Your task to perform on an android device: Show the shopping cart on amazon. Add "energizer triple a" to the cart on amazon Image 0: 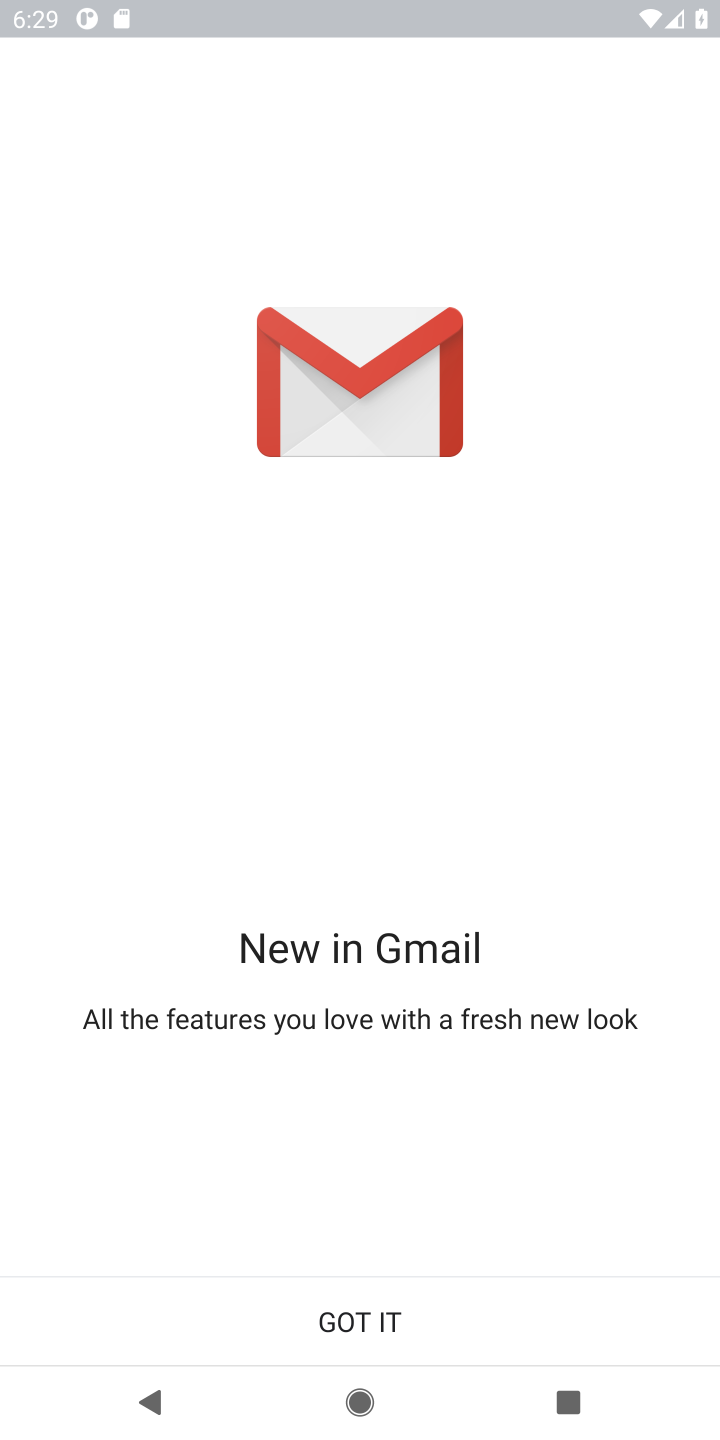
Step 0: press home button
Your task to perform on an android device: Show the shopping cart on amazon. Add "energizer triple a" to the cart on amazon Image 1: 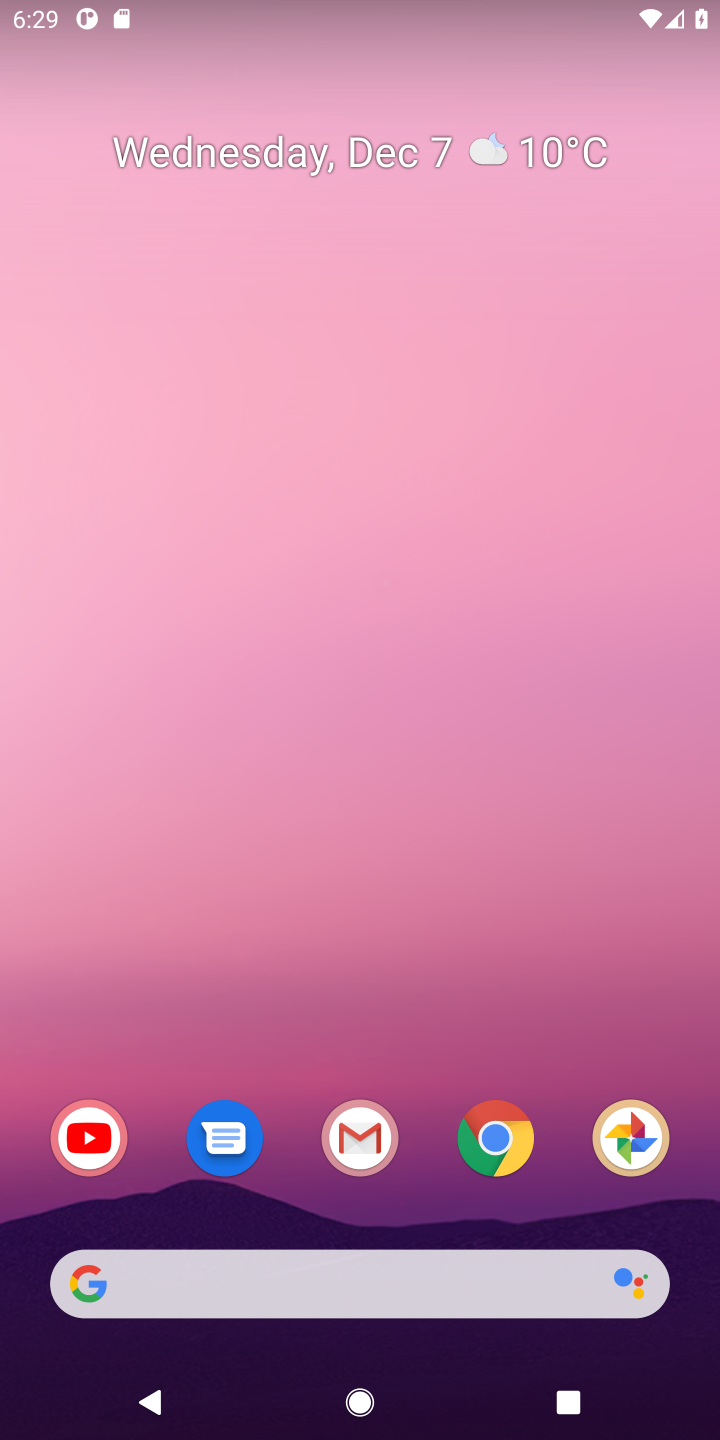
Step 1: click (147, 1301)
Your task to perform on an android device: Show the shopping cart on amazon. Add "energizer triple a" to the cart on amazon Image 2: 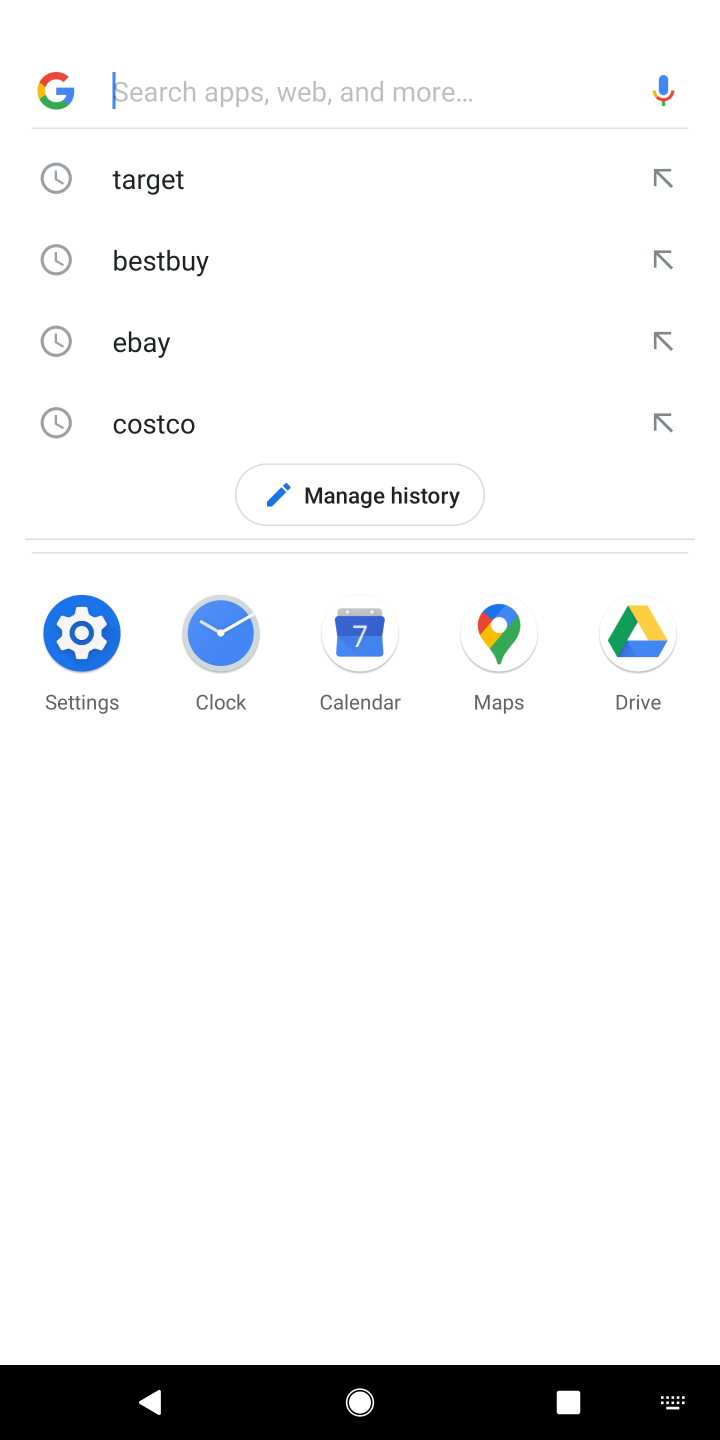
Step 2: press enter
Your task to perform on an android device: Show the shopping cart on amazon. Add "energizer triple a" to the cart on amazon Image 3: 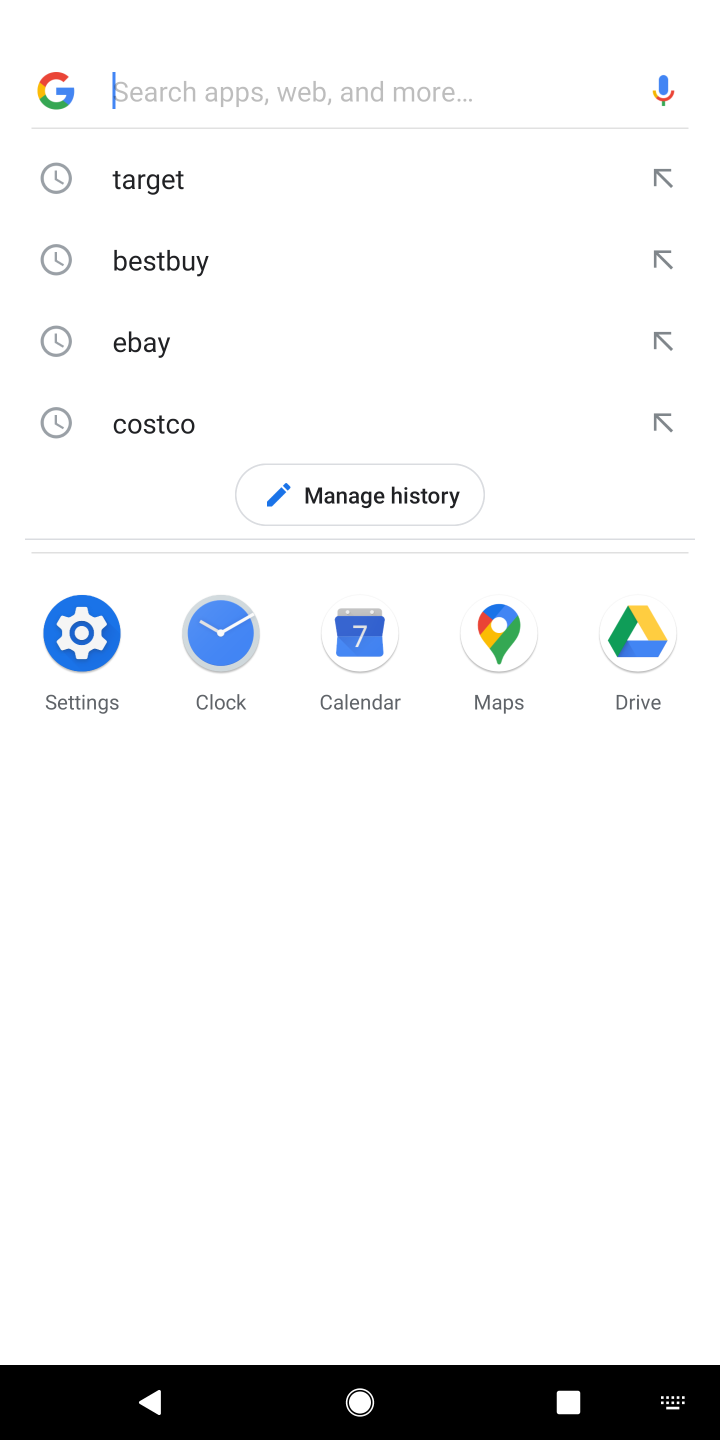
Step 3: type " amazon"
Your task to perform on an android device: Show the shopping cart on amazon. Add "energizer triple a" to the cart on amazon Image 4: 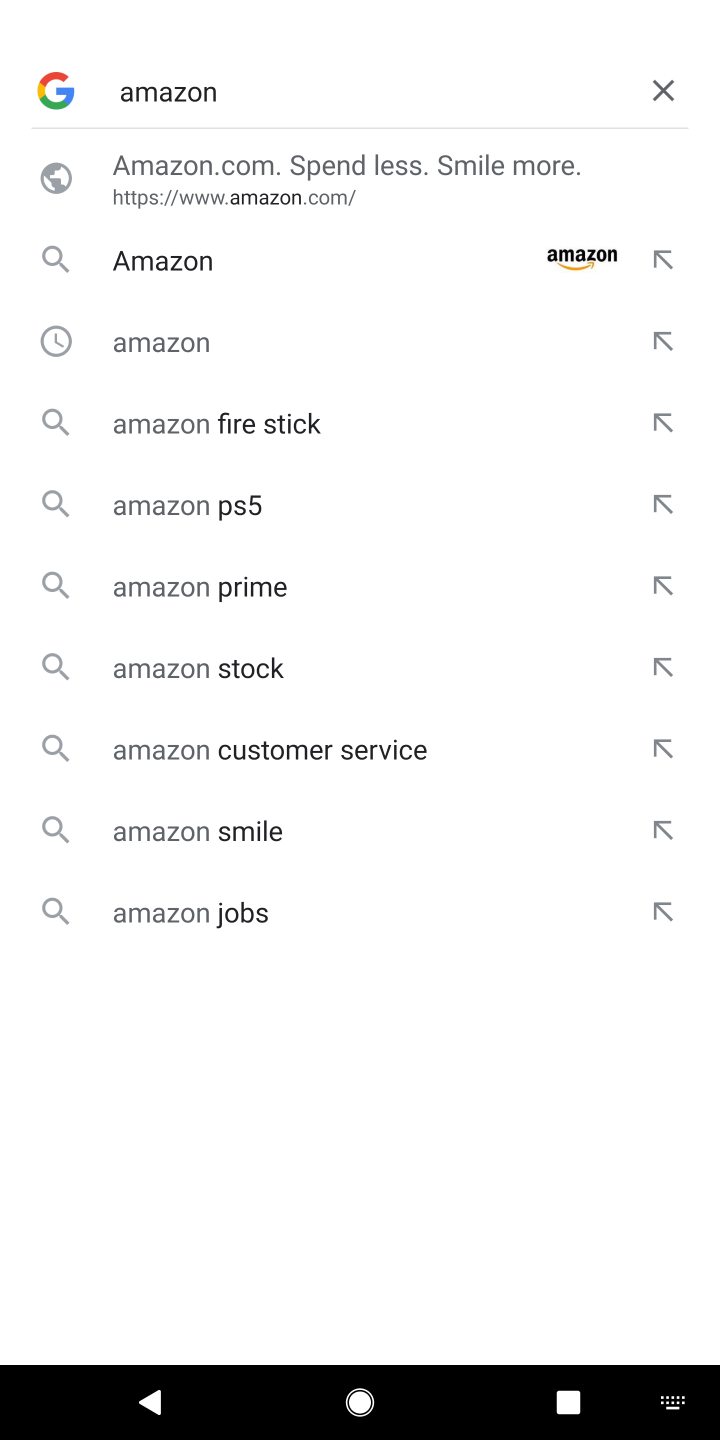
Step 4: press enter
Your task to perform on an android device: Show the shopping cart on amazon. Add "energizer triple a" to the cart on amazon Image 5: 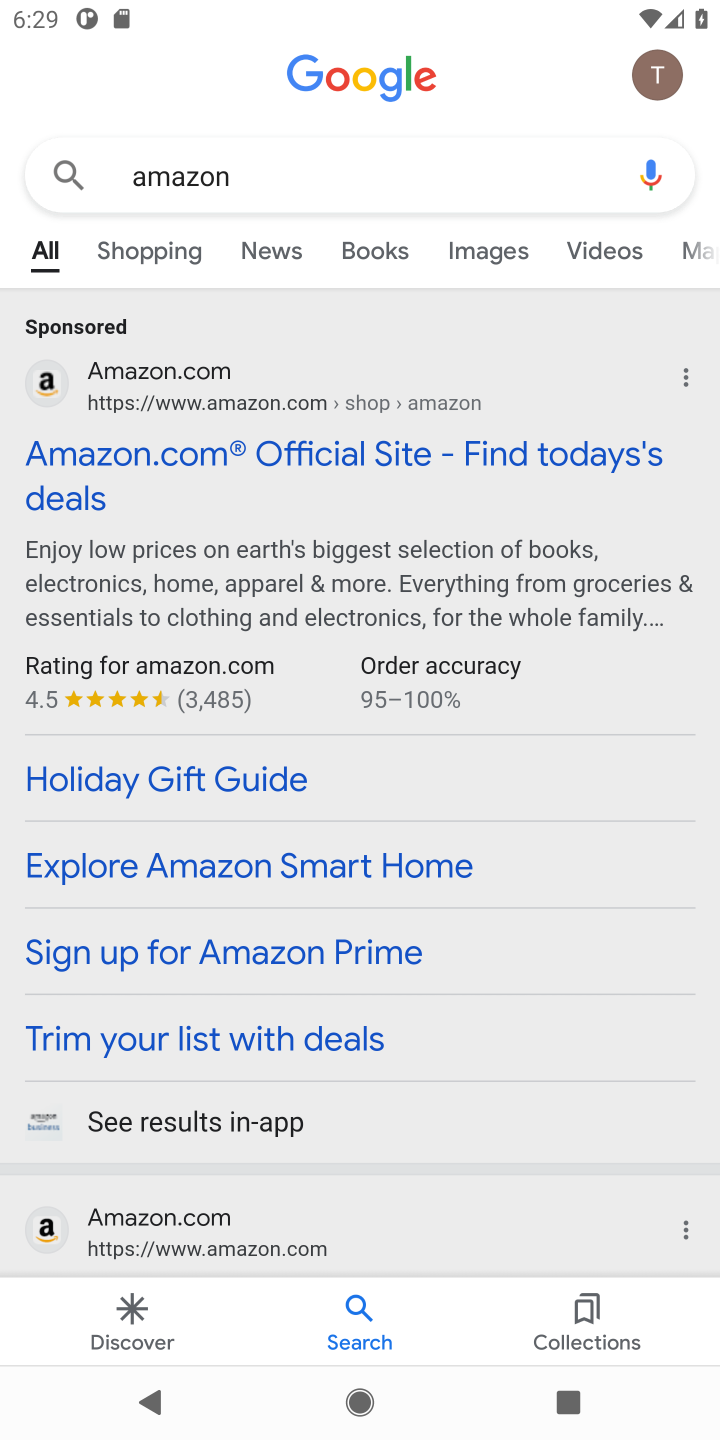
Step 5: click (404, 450)
Your task to perform on an android device: Show the shopping cart on amazon. Add "energizer triple a" to the cart on amazon Image 6: 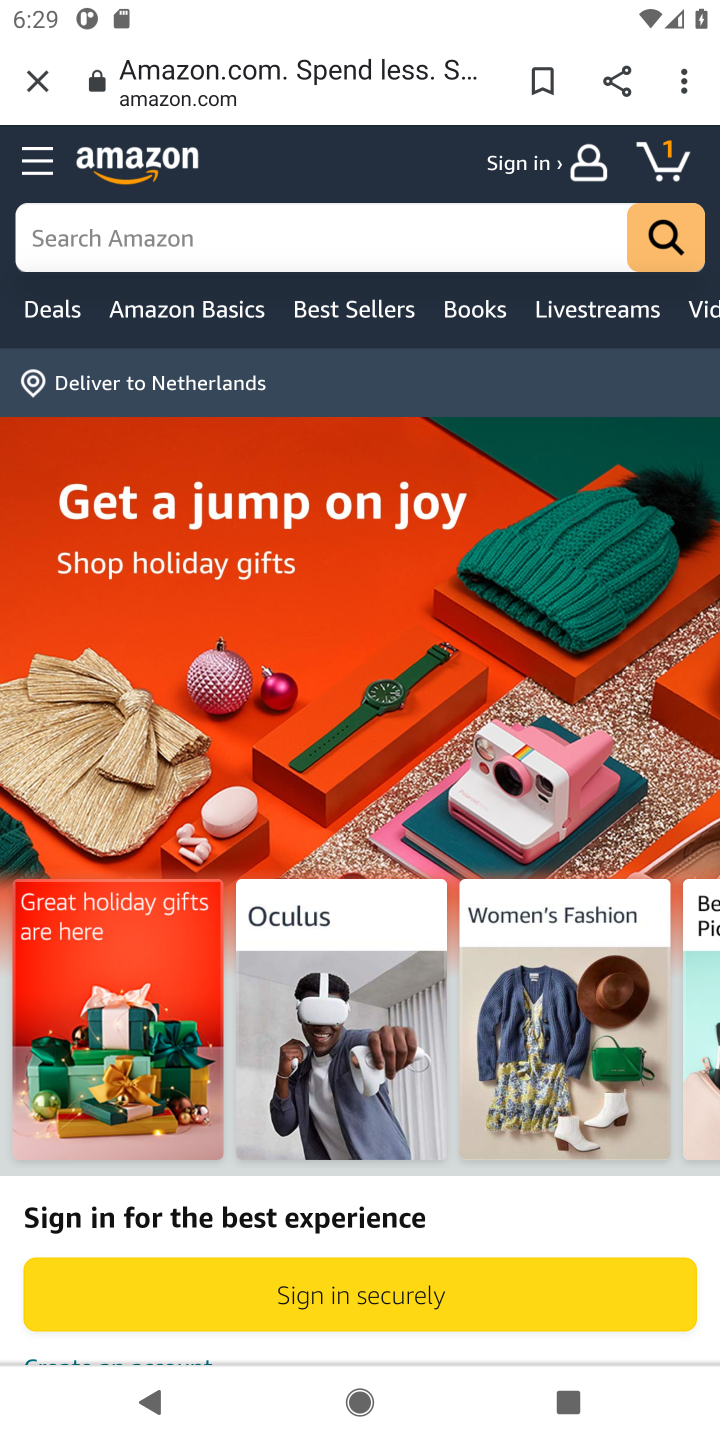
Step 6: click (664, 168)
Your task to perform on an android device: Show the shopping cart on amazon. Add "energizer triple a" to the cart on amazon Image 7: 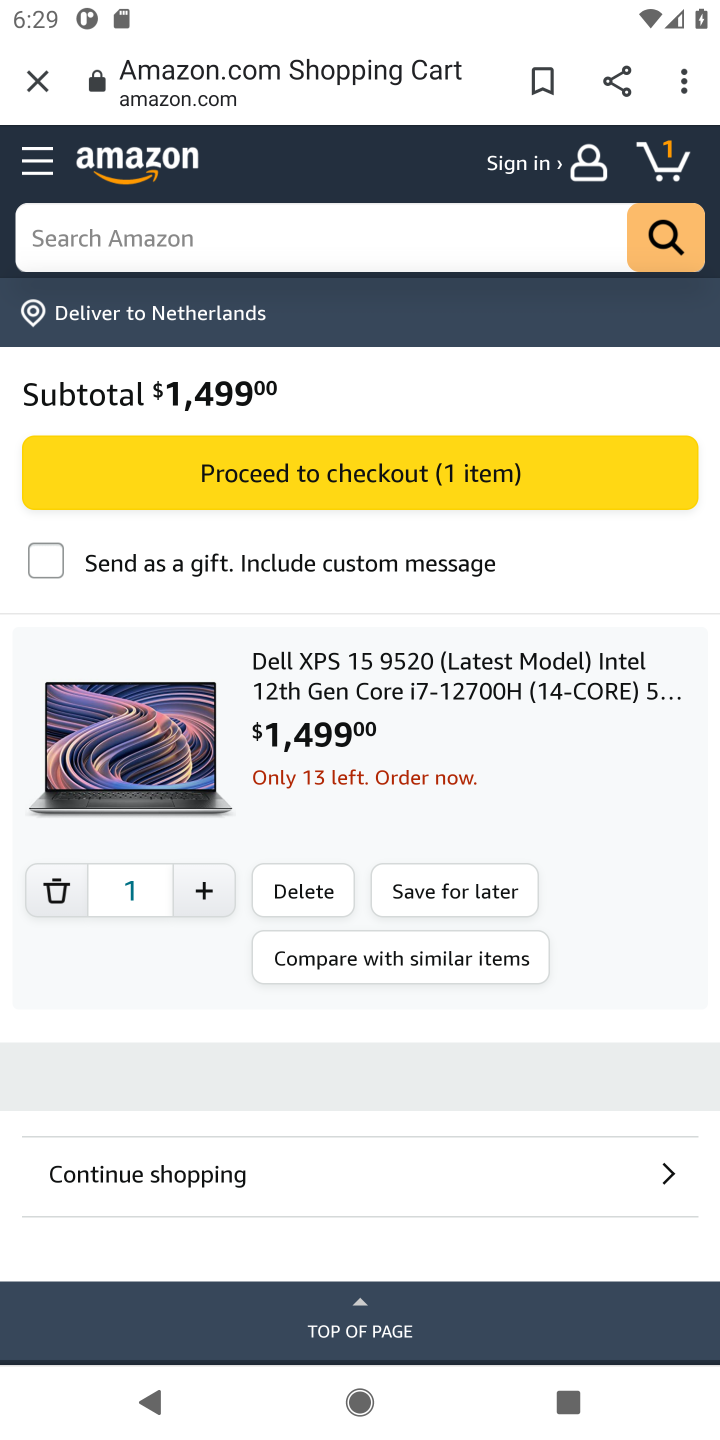
Step 7: click (195, 247)
Your task to perform on an android device: Show the shopping cart on amazon. Add "energizer triple a" to the cart on amazon Image 8: 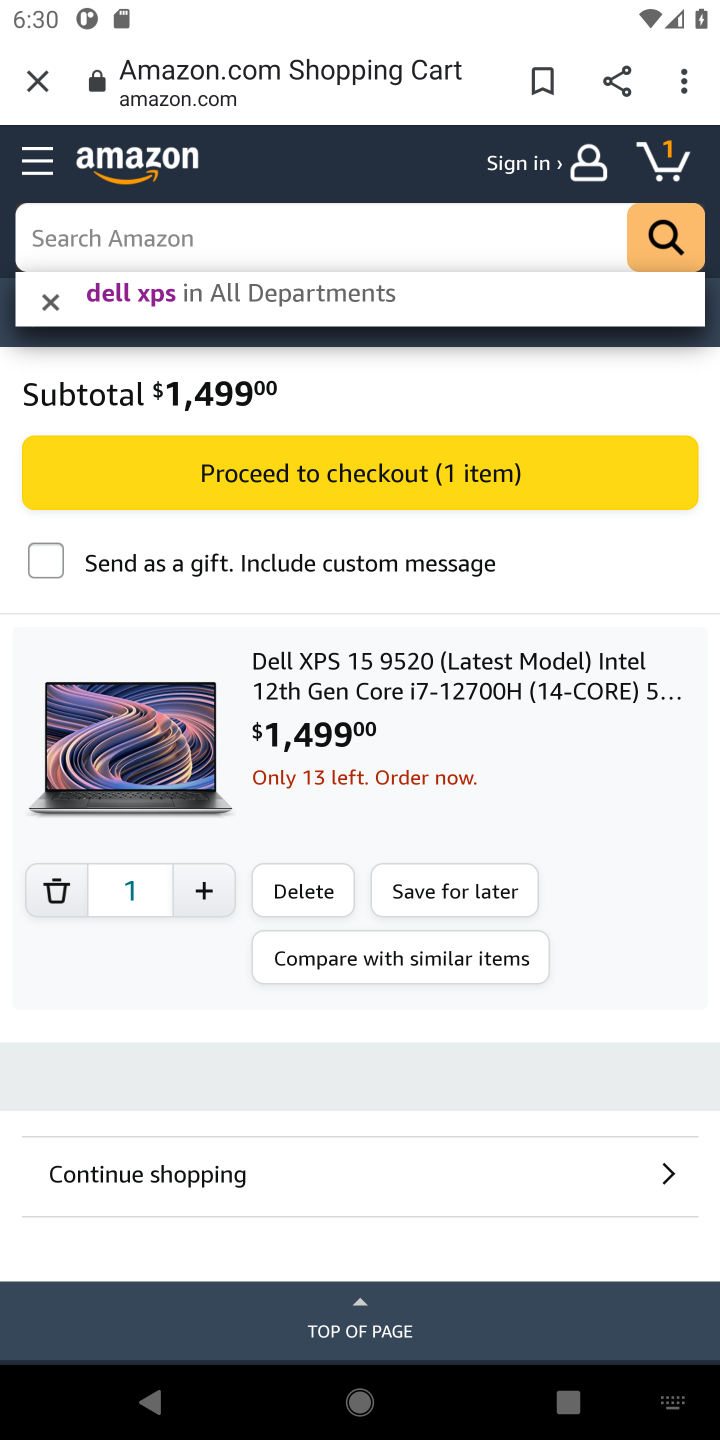
Step 8: type "energizer triple a"
Your task to perform on an android device: Show the shopping cart on amazon. Add "energizer triple a" to the cart on amazon Image 9: 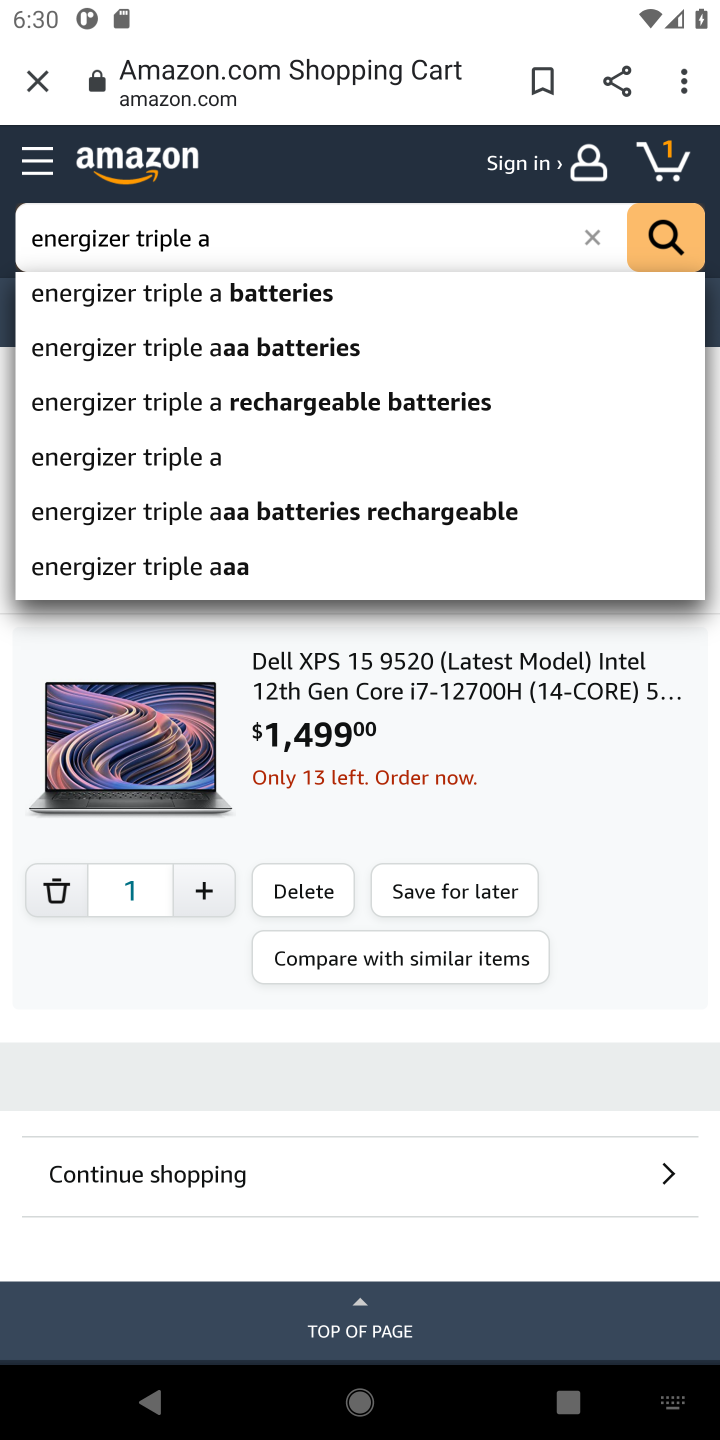
Step 9: click (674, 221)
Your task to perform on an android device: Show the shopping cart on amazon. Add "energizer triple a" to the cart on amazon Image 10: 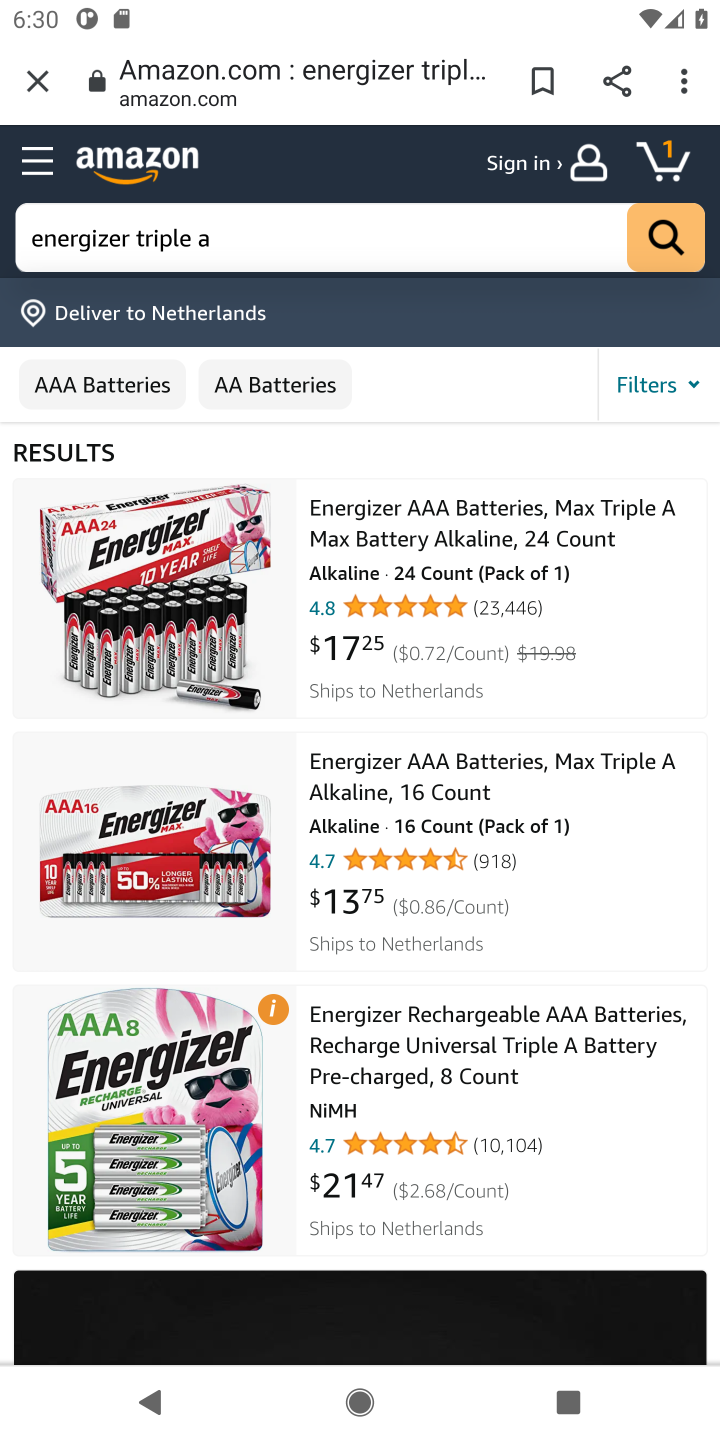
Step 10: click (530, 600)
Your task to perform on an android device: Show the shopping cart on amazon. Add "energizer triple a" to the cart on amazon Image 11: 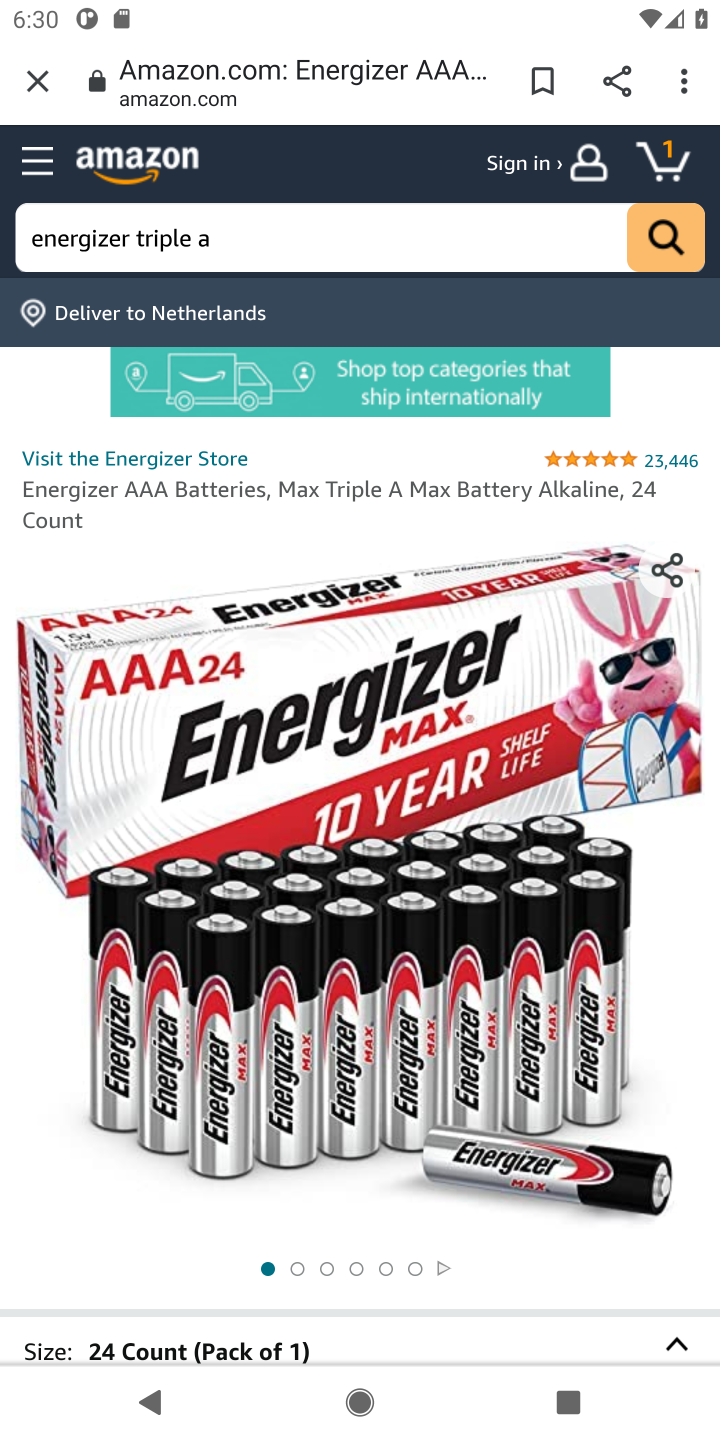
Step 11: drag from (445, 1071) to (431, 710)
Your task to perform on an android device: Show the shopping cart on amazon. Add "energizer triple a" to the cart on amazon Image 12: 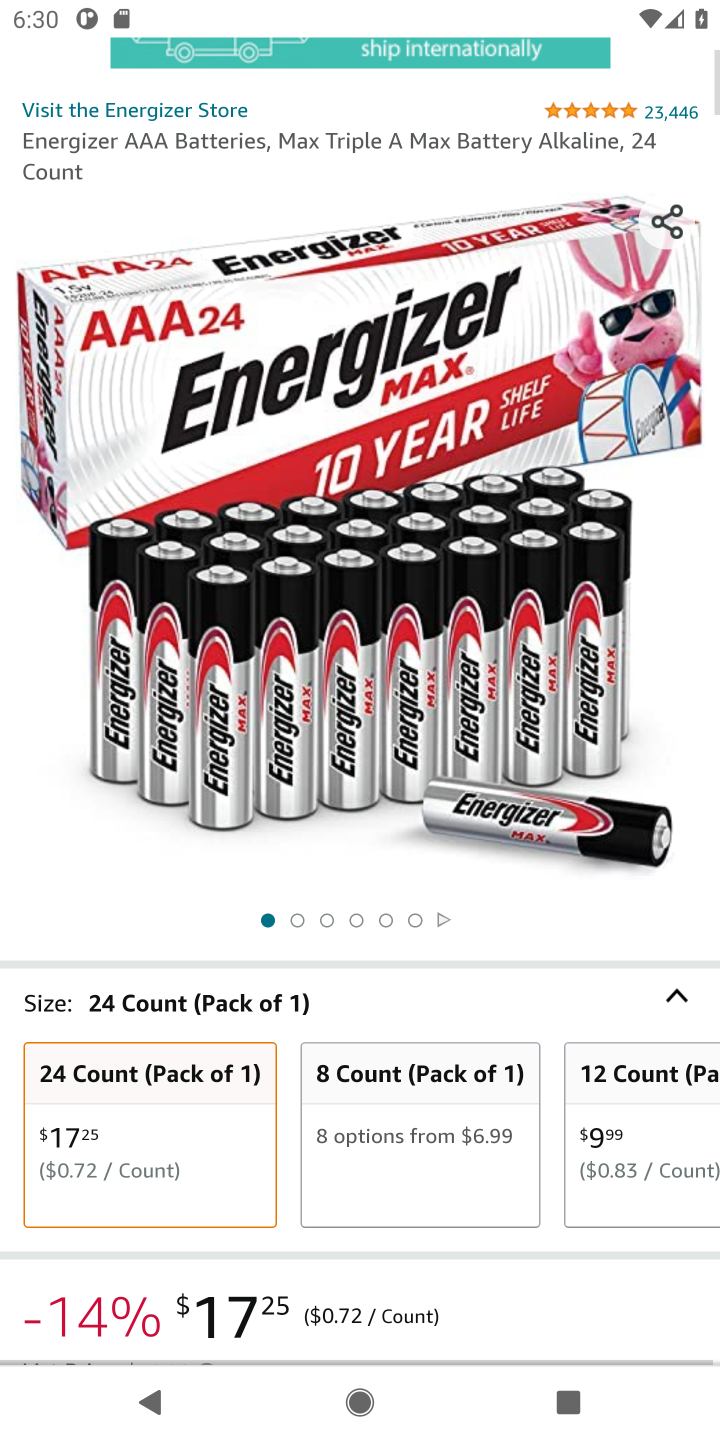
Step 12: drag from (343, 1126) to (358, 578)
Your task to perform on an android device: Show the shopping cart on amazon. Add "energizer triple a" to the cart on amazon Image 13: 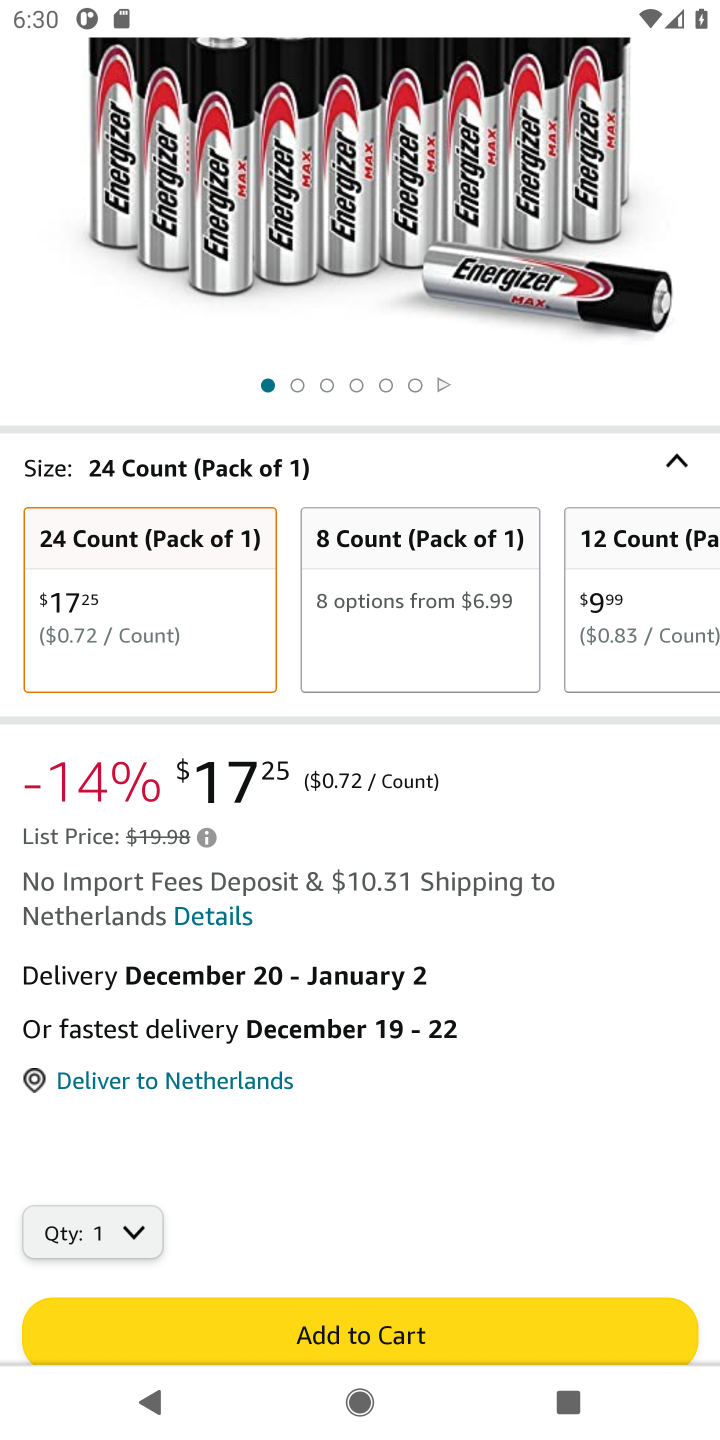
Step 13: drag from (443, 1180) to (465, 582)
Your task to perform on an android device: Show the shopping cart on amazon. Add "energizer triple a" to the cart on amazon Image 14: 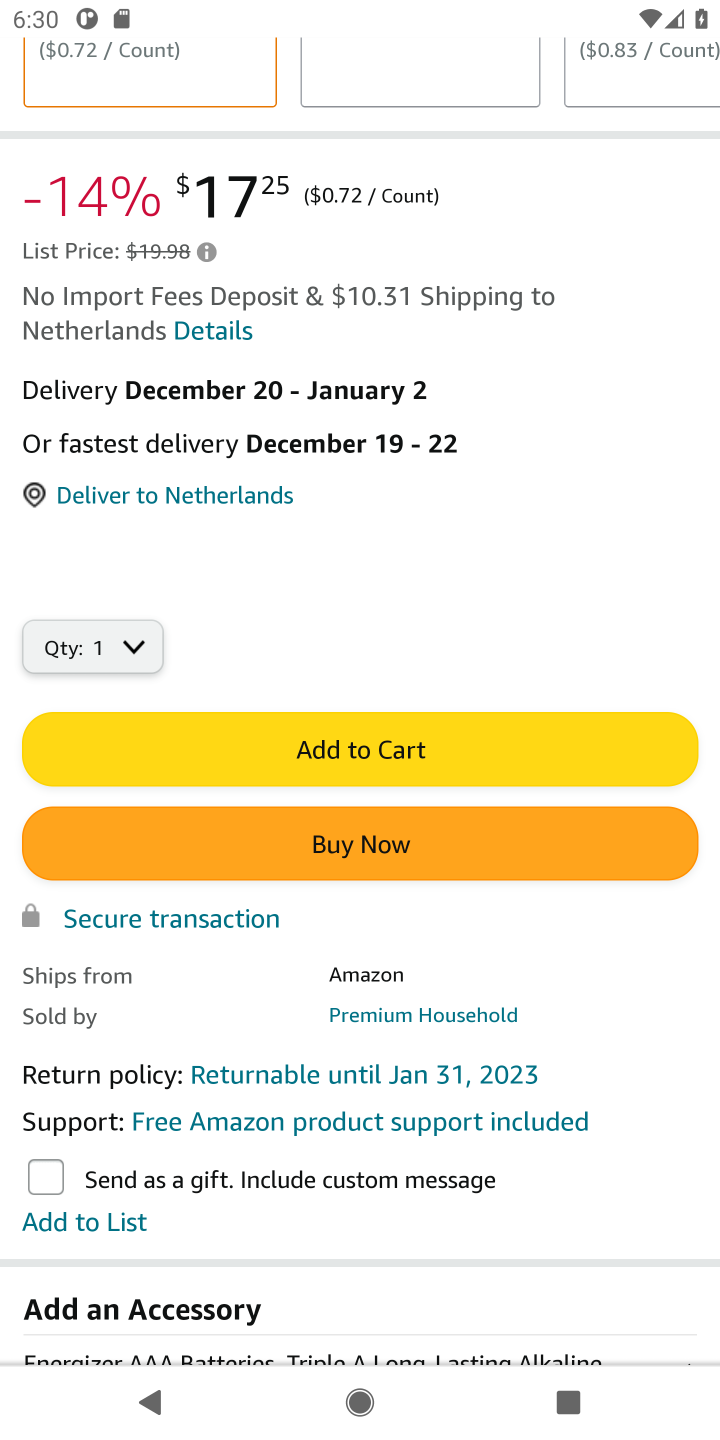
Step 14: click (367, 755)
Your task to perform on an android device: Show the shopping cart on amazon. Add "energizer triple a" to the cart on amazon Image 15: 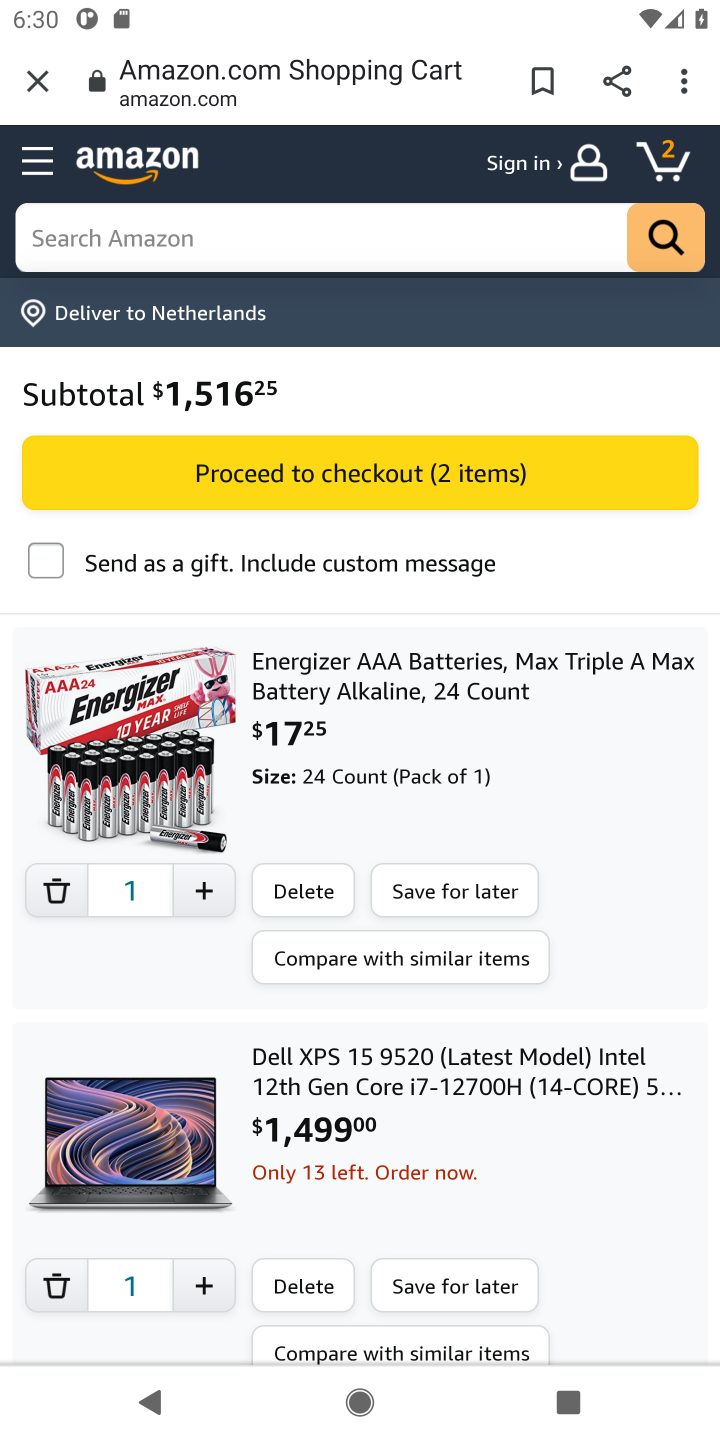
Step 15: task complete